Your task to perform on an android device: search for starred emails in the gmail app Image 0: 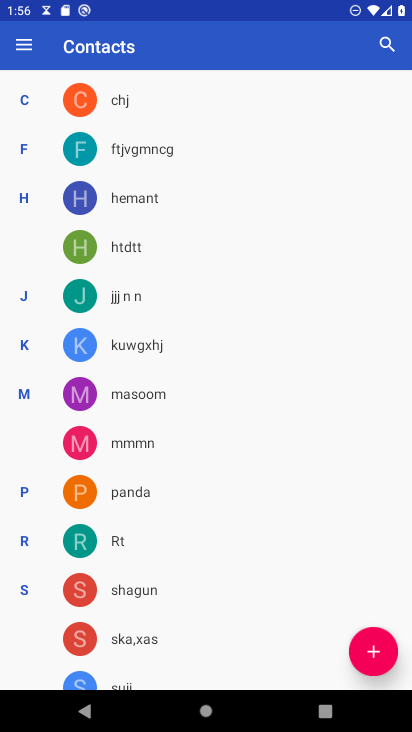
Step 0: press home button
Your task to perform on an android device: search for starred emails in the gmail app Image 1: 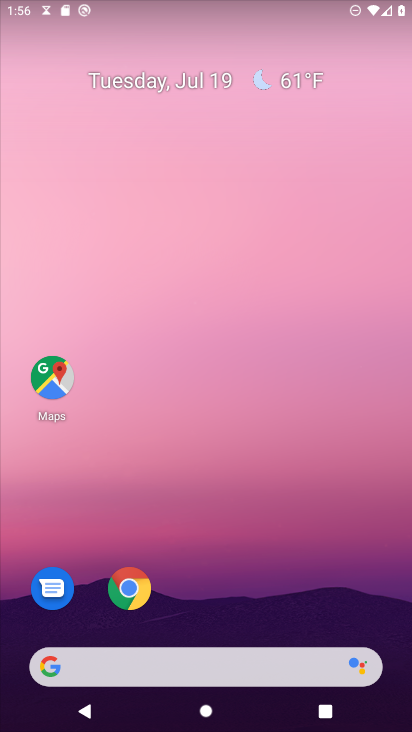
Step 1: drag from (285, 700) to (255, 176)
Your task to perform on an android device: search for starred emails in the gmail app Image 2: 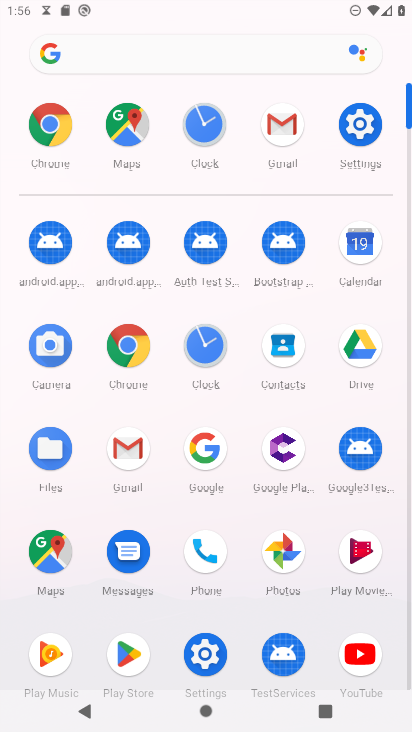
Step 2: click (125, 446)
Your task to perform on an android device: search for starred emails in the gmail app Image 3: 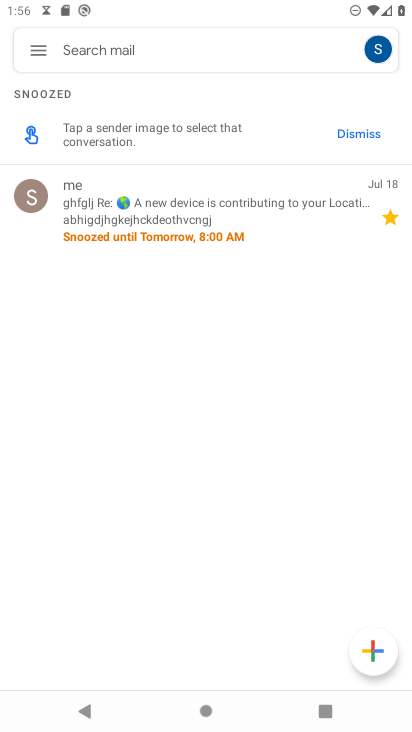
Step 3: click (355, 138)
Your task to perform on an android device: search for starred emails in the gmail app Image 4: 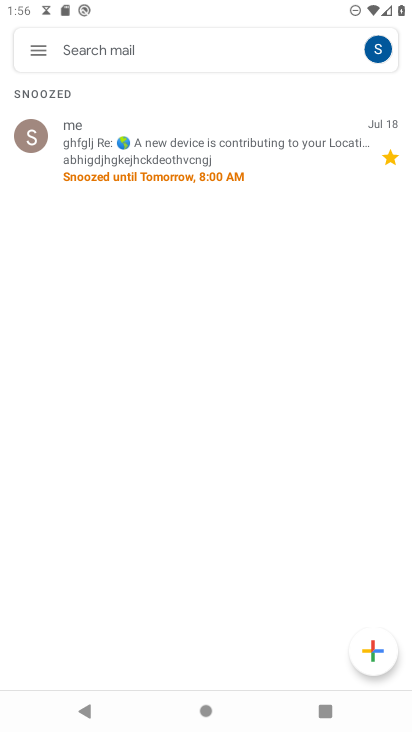
Step 4: click (31, 48)
Your task to perform on an android device: search for starred emails in the gmail app Image 5: 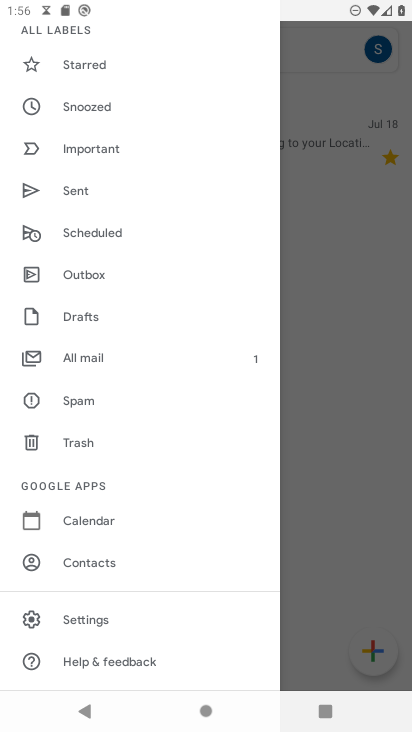
Step 5: click (98, 66)
Your task to perform on an android device: search for starred emails in the gmail app Image 6: 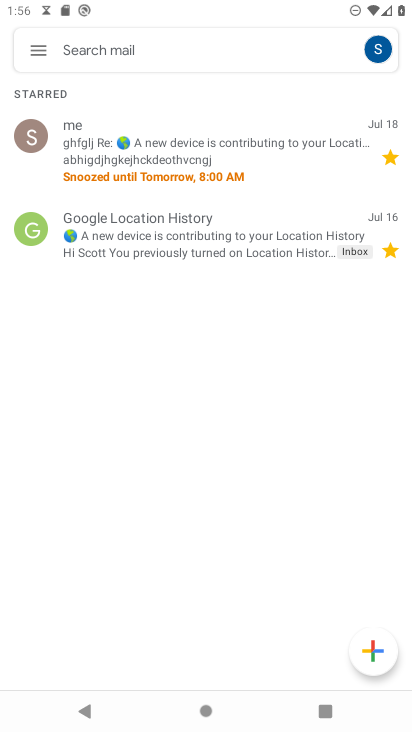
Step 6: task complete